Your task to perform on an android device: Open Chrome and go to settings Image 0: 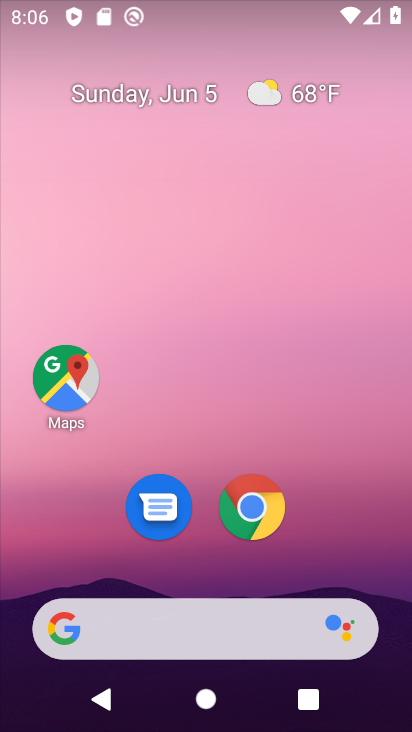
Step 0: click (261, 507)
Your task to perform on an android device: Open Chrome and go to settings Image 1: 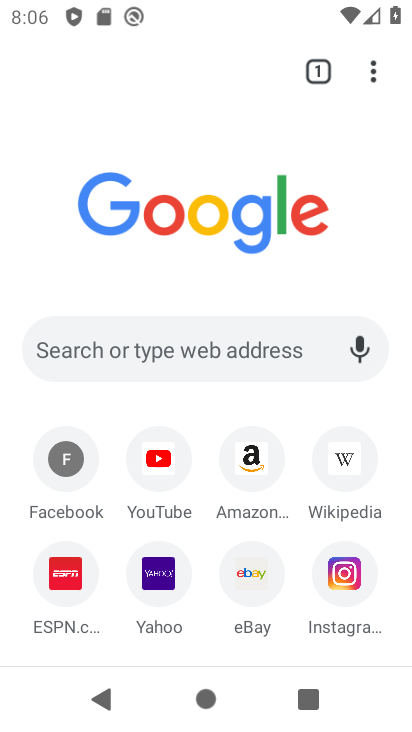
Step 1: click (375, 66)
Your task to perform on an android device: Open Chrome and go to settings Image 2: 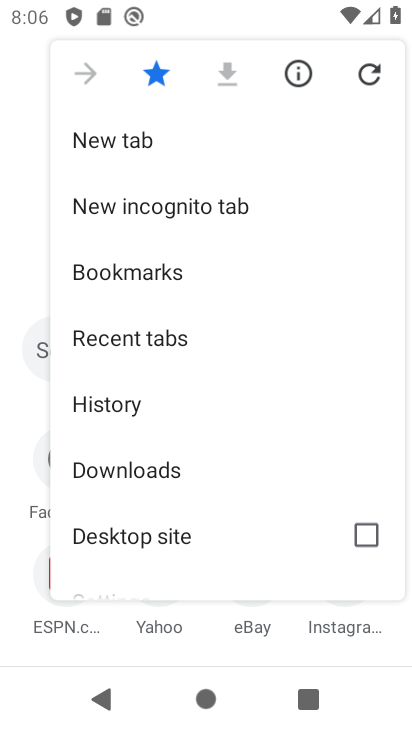
Step 2: drag from (169, 535) to (219, 47)
Your task to perform on an android device: Open Chrome and go to settings Image 3: 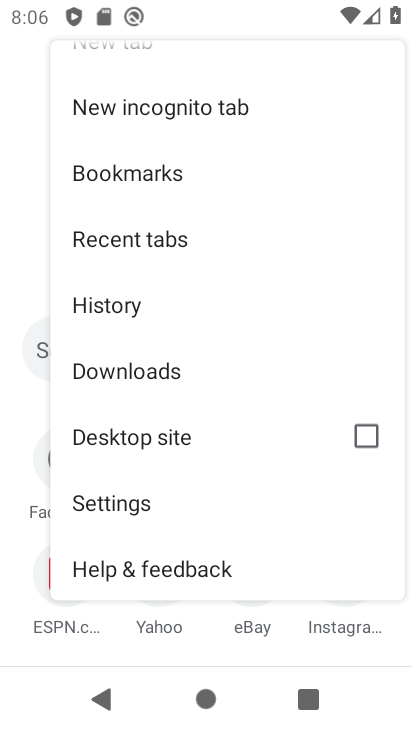
Step 3: click (142, 500)
Your task to perform on an android device: Open Chrome and go to settings Image 4: 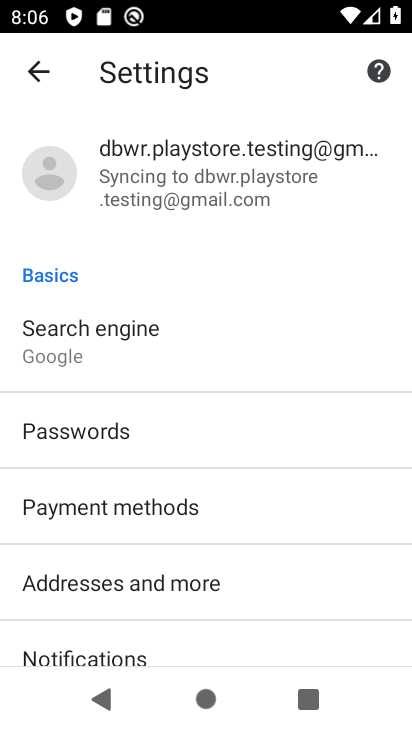
Step 4: task complete